Your task to perform on an android device: Open Reddit.com Image 0: 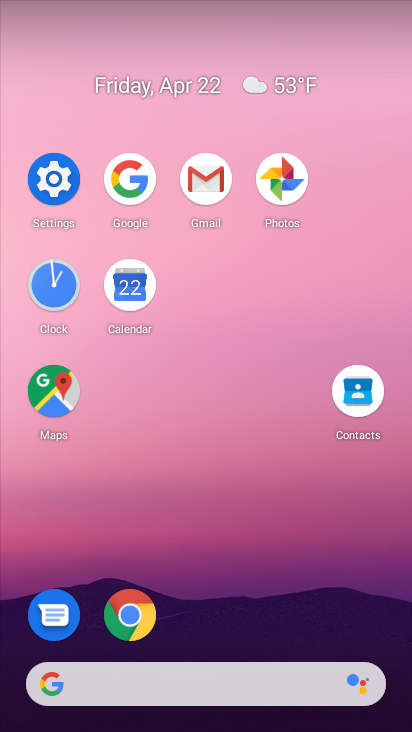
Step 0: click (138, 601)
Your task to perform on an android device: Open Reddit.com Image 1: 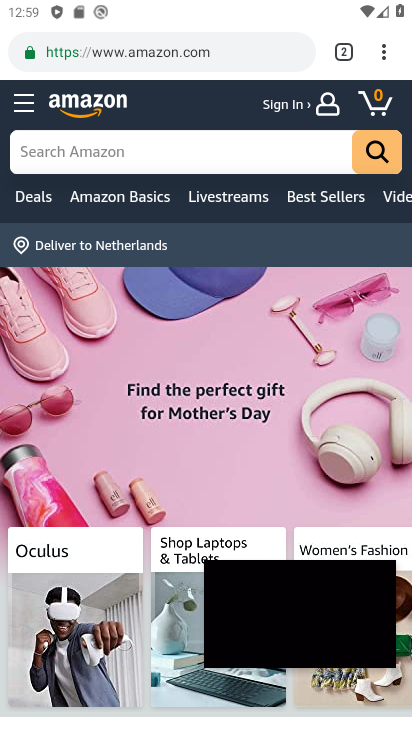
Step 1: click (344, 58)
Your task to perform on an android device: Open Reddit.com Image 2: 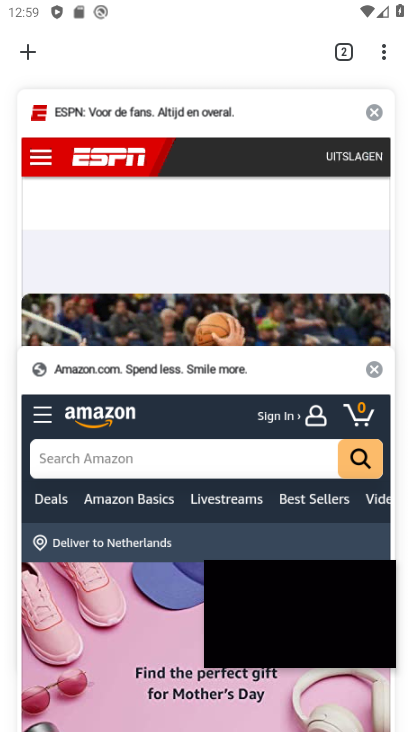
Step 2: click (29, 56)
Your task to perform on an android device: Open Reddit.com Image 3: 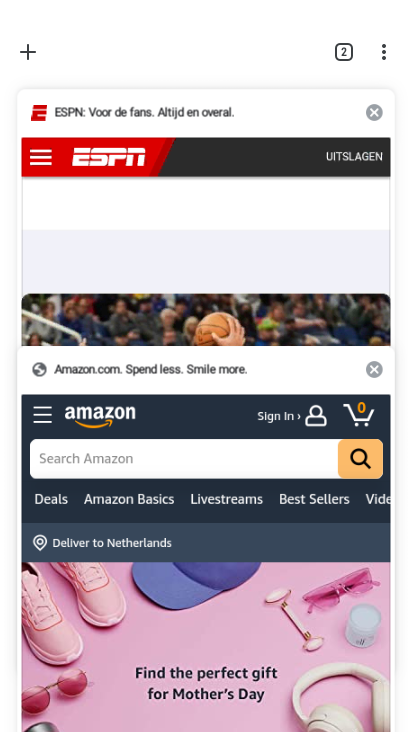
Step 3: click (21, 53)
Your task to perform on an android device: Open Reddit.com Image 4: 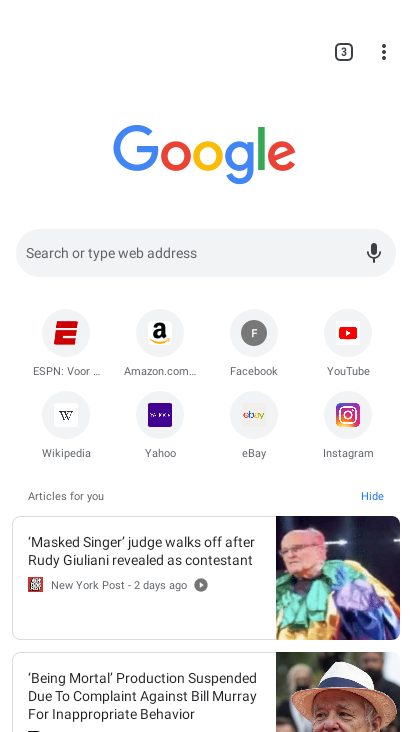
Step 4: click (211, 255)
Your task to perform on an android device: Open Reddit.com Image 5: 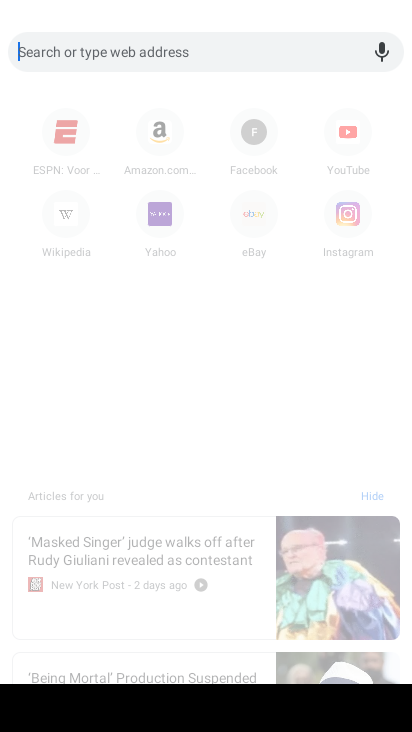
Step 5: type "reddit"
Your task to perform on an android device: Open Reddit.com Image 6: 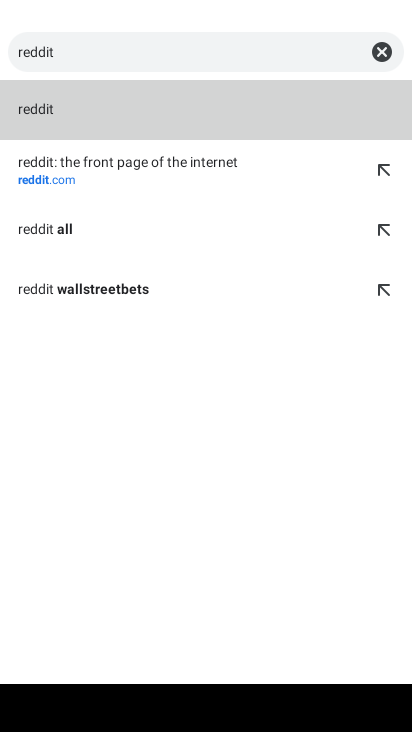
Step 6: click (52, 184)
Your task to perform on an android device: Open Reddit.com Image 7: 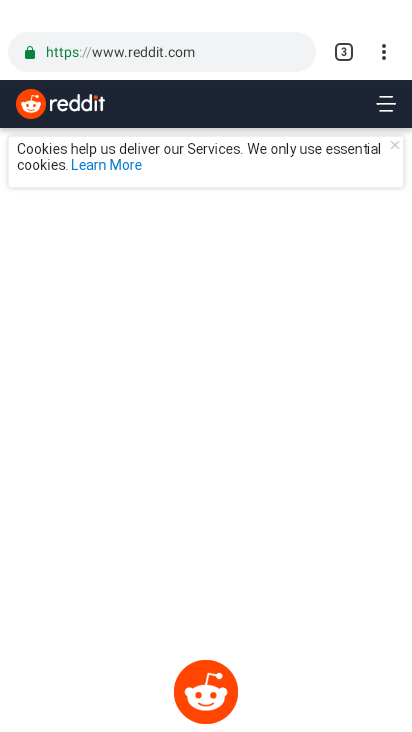
Step 7: task complete